Your task to perform on an android device: Go to ESPN.com Image 0: 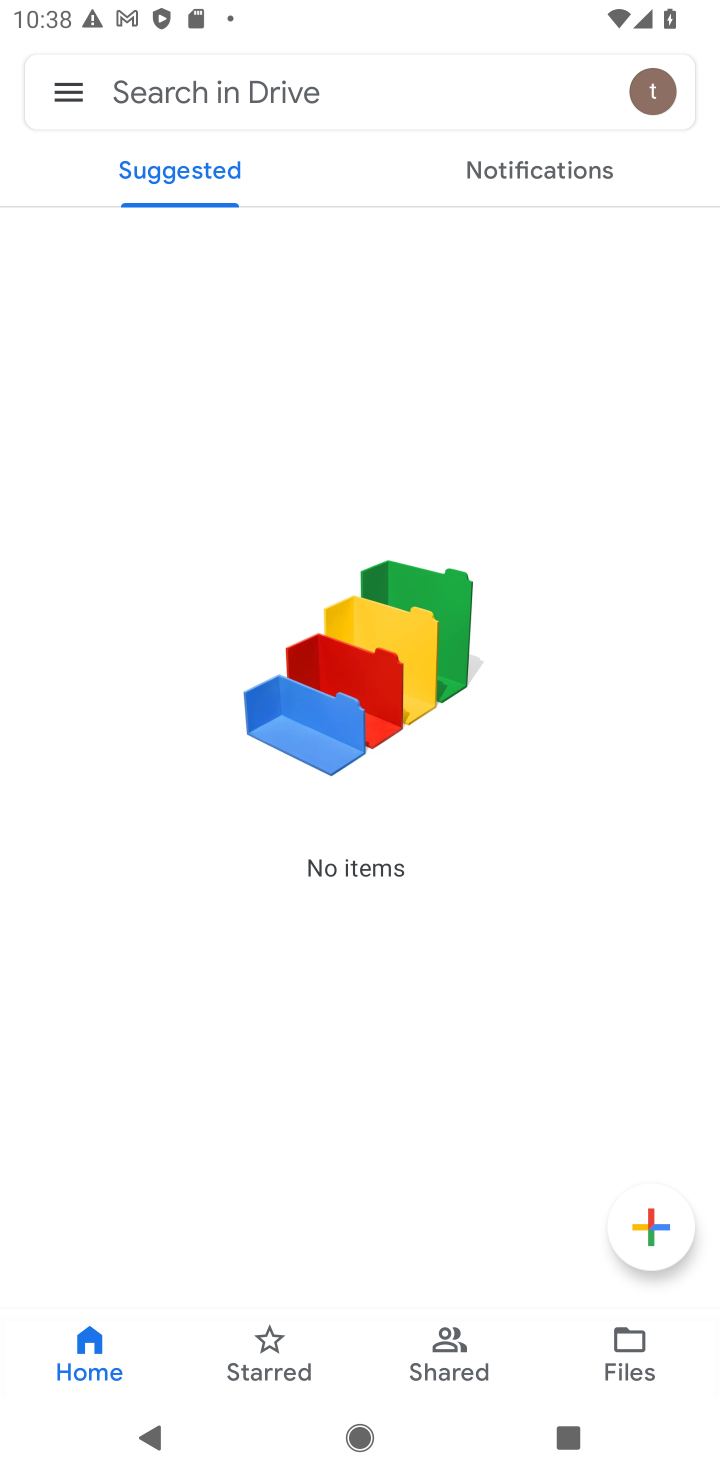
Step 0: press home button
Your task to perform on an android device: Go to ESPN.com Image 1: 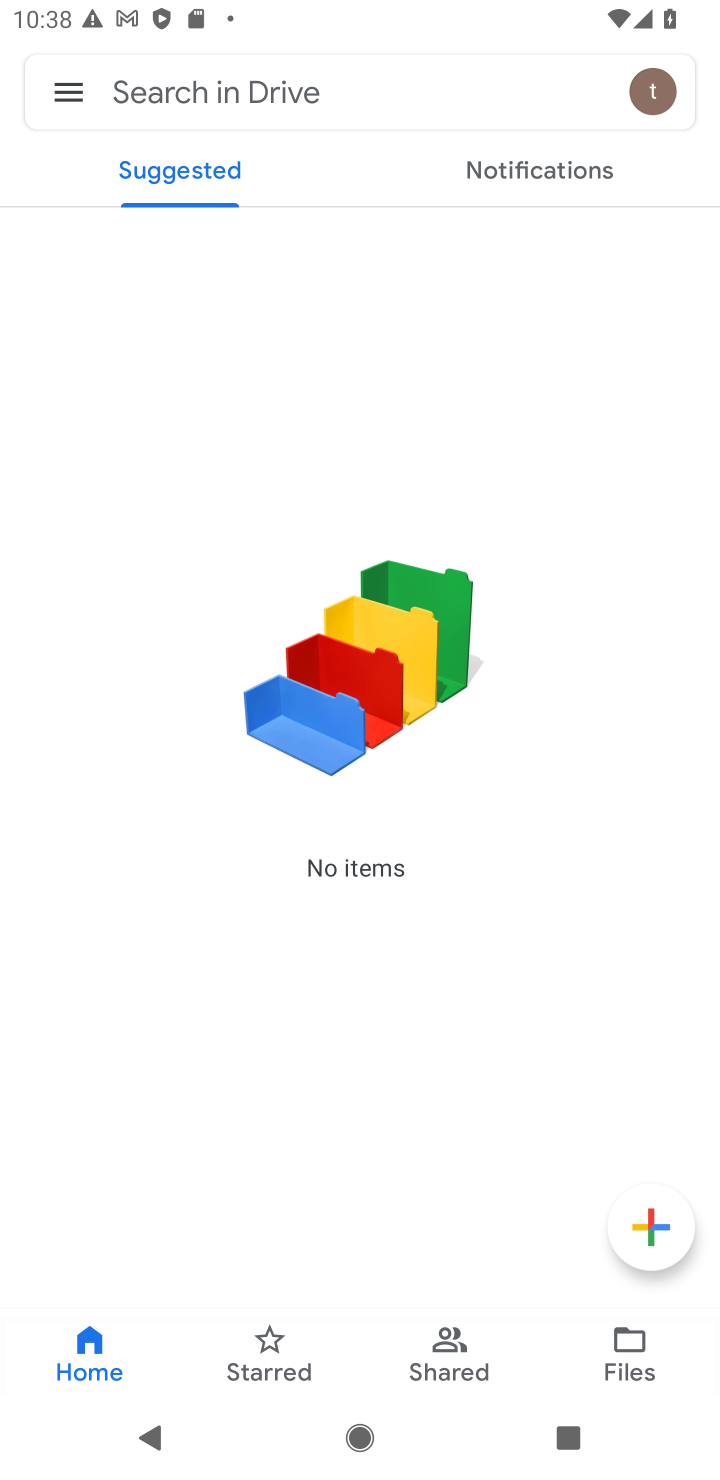
Step 1: press home button
Your task to perform on an android device: Go to ESPN.com Image 2: 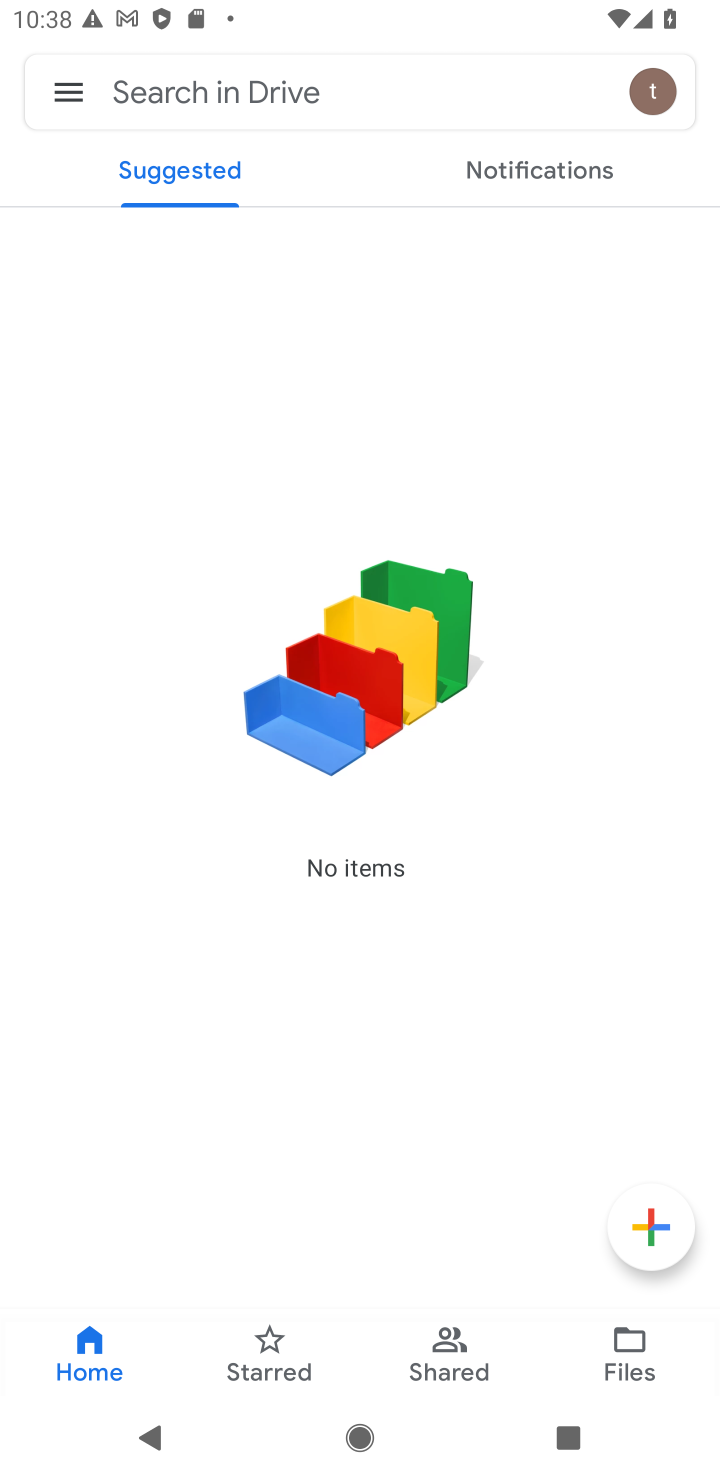
Step 2: press home button
Your task to perform on an android device: Go to ESPN.com Image 3: 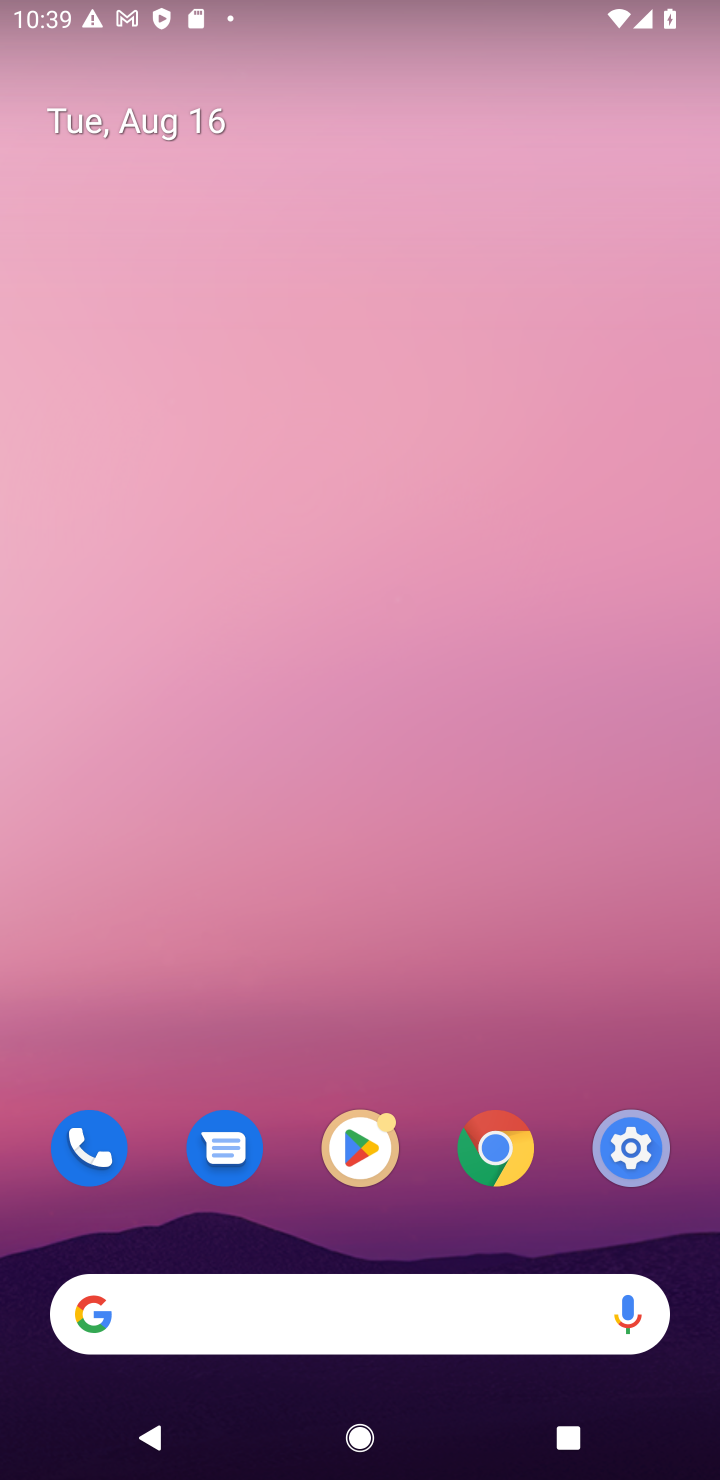
Step 3: click (506, 1149)
Your task to perform on an android device: Go to ESPN.com Image 4: 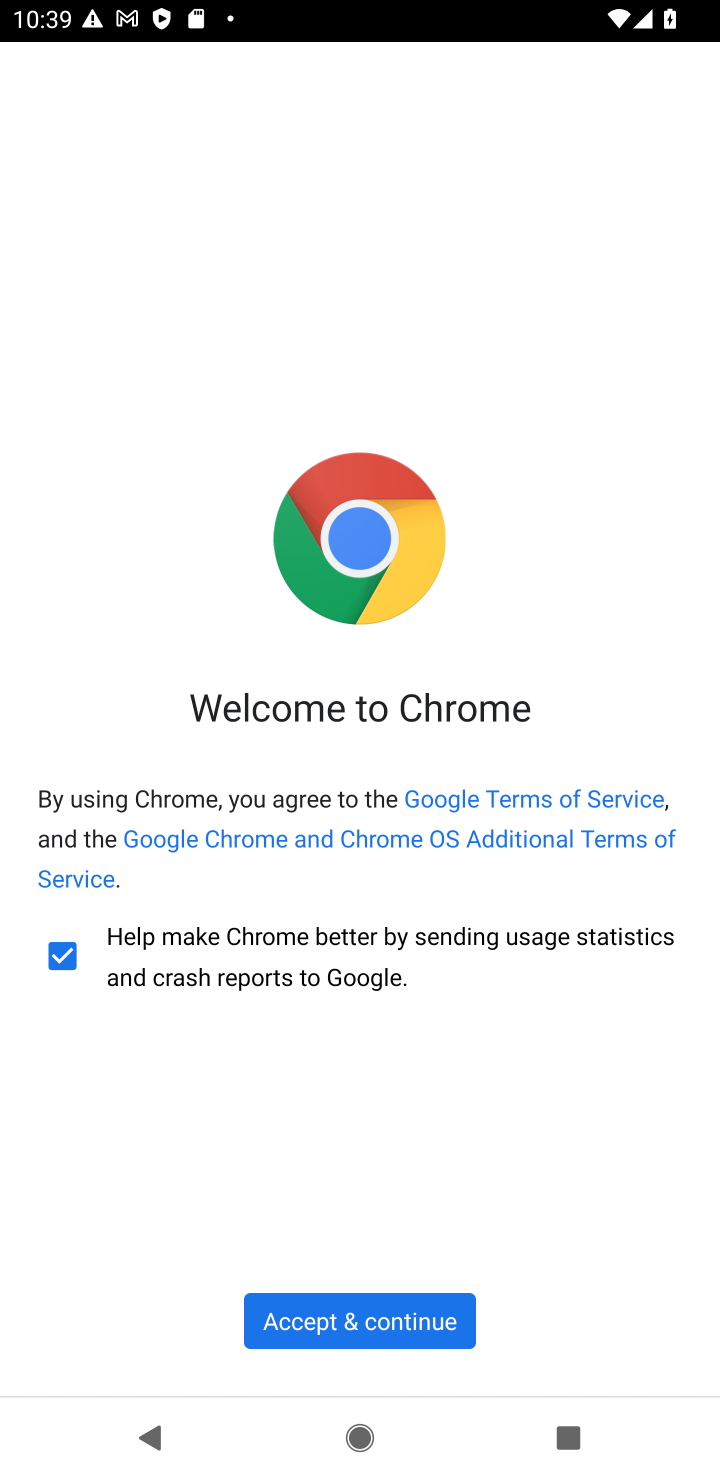
Step 4: click (353, 1300)
Your task to perform on an android device: Go to ESPN.com Image 5: 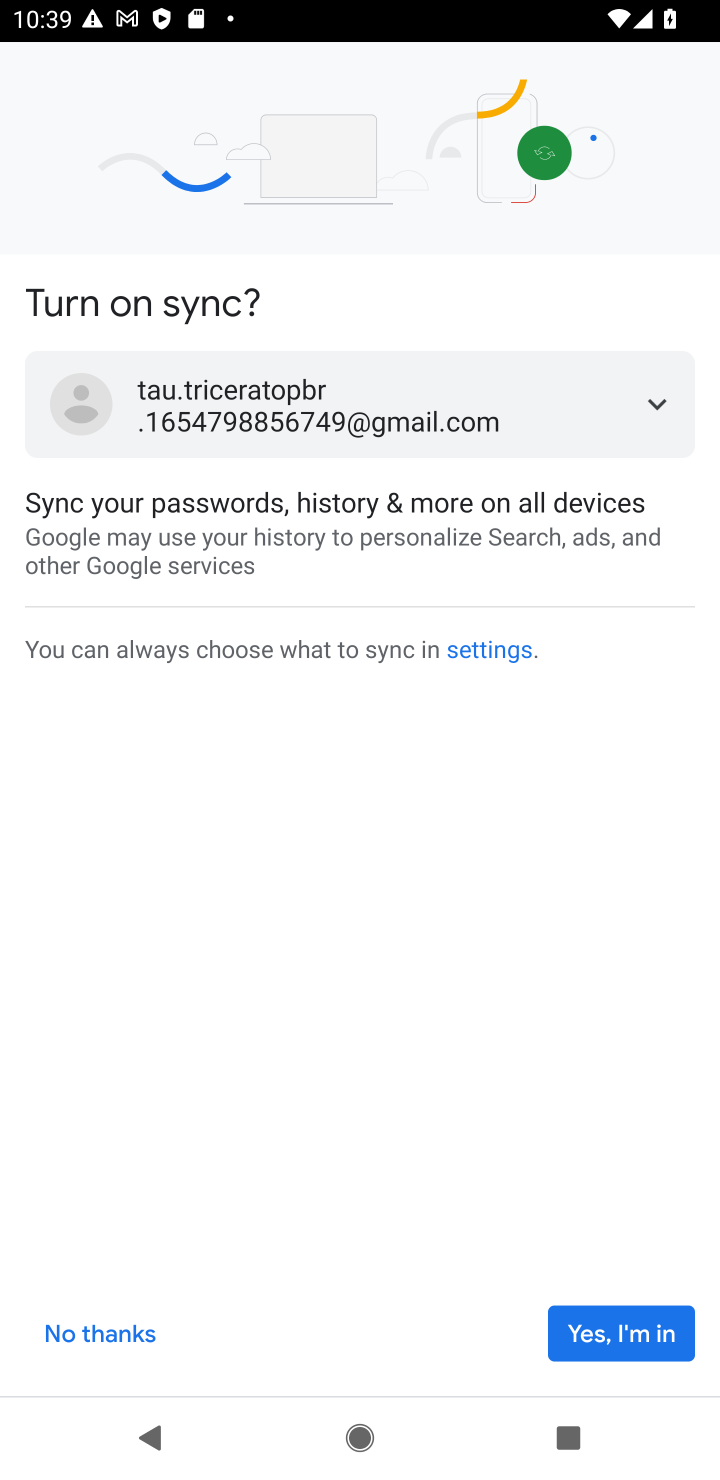
Step 5: click (663, 1325)
Your task to perform on an android device: Go to ESPN.com Image 6: 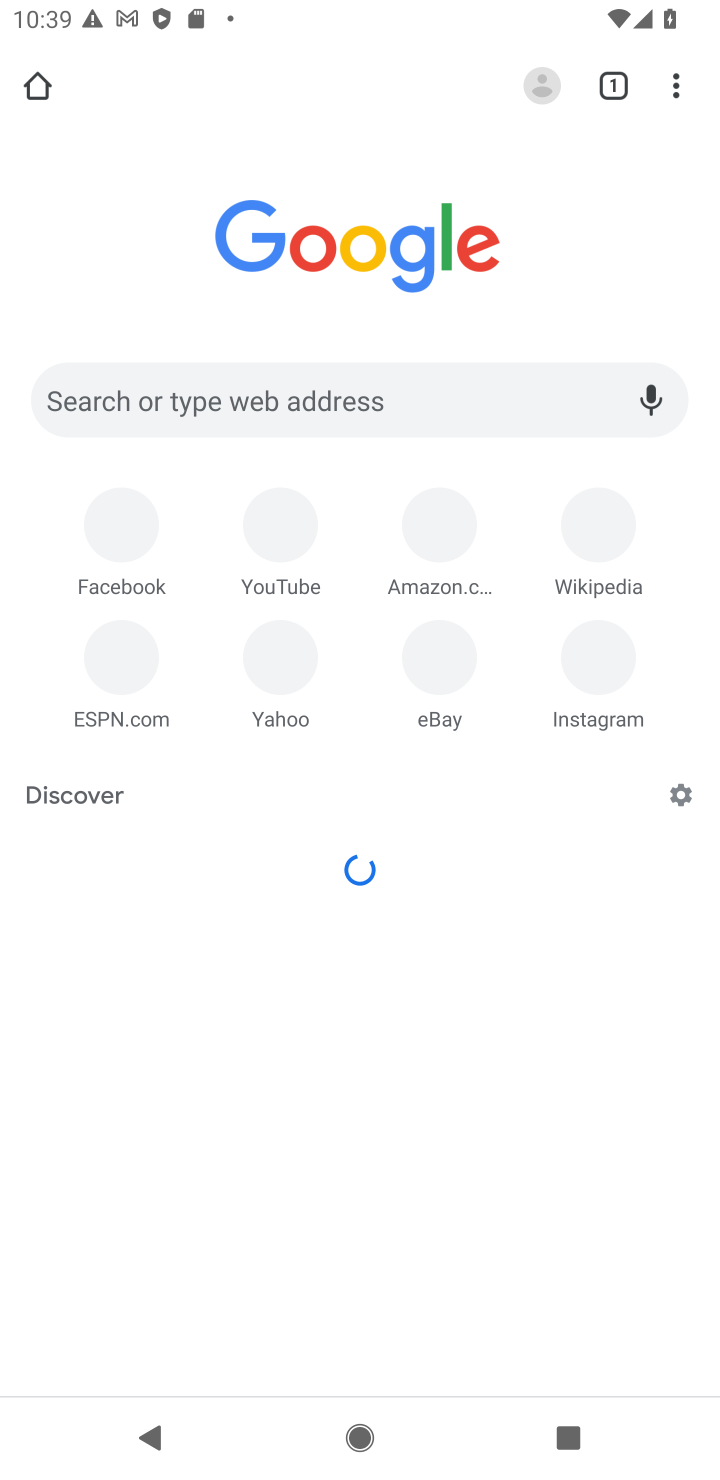
Step 6: click (663, 1325)
Your task to perform on an android device: Go to ESPN.com Image 7: 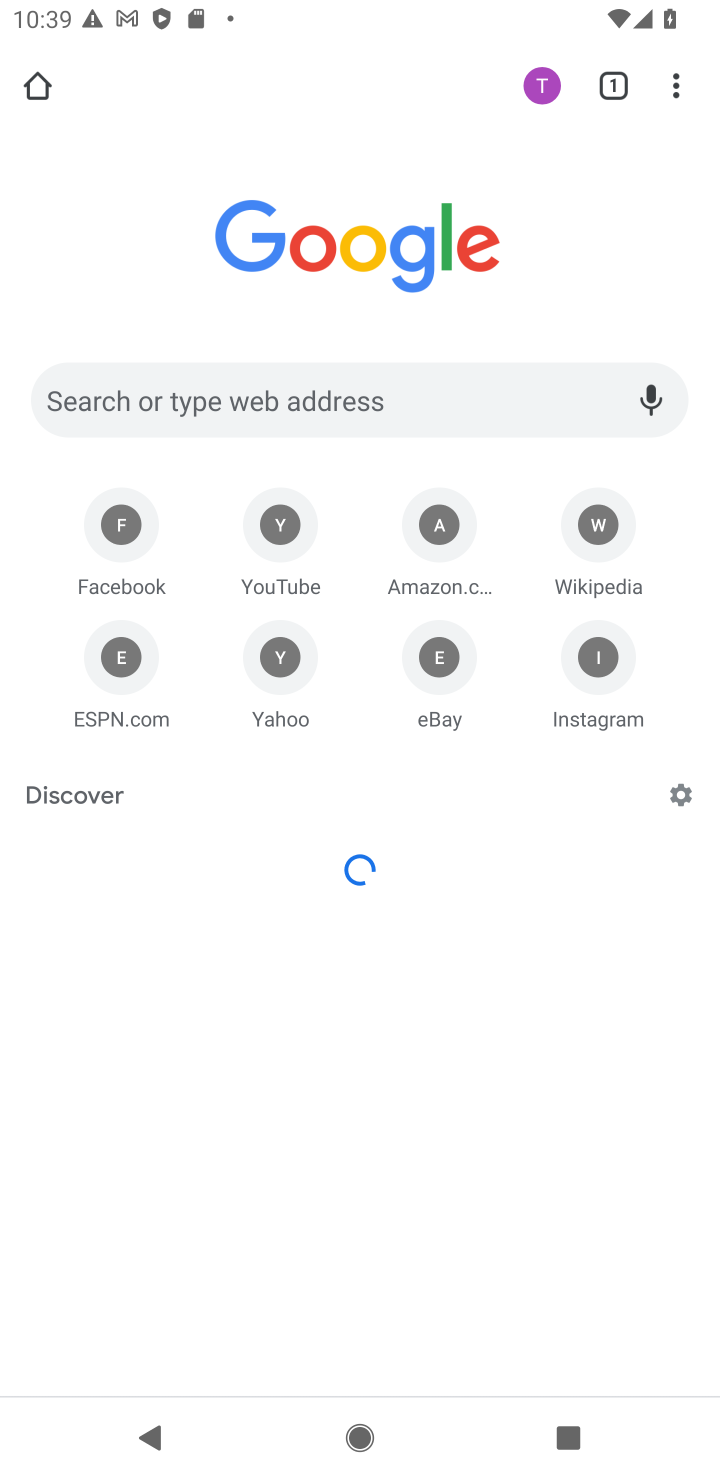
Step 7: click (301, 408)
Your task to perform on an android device: Go to ESPN.com Image 8: 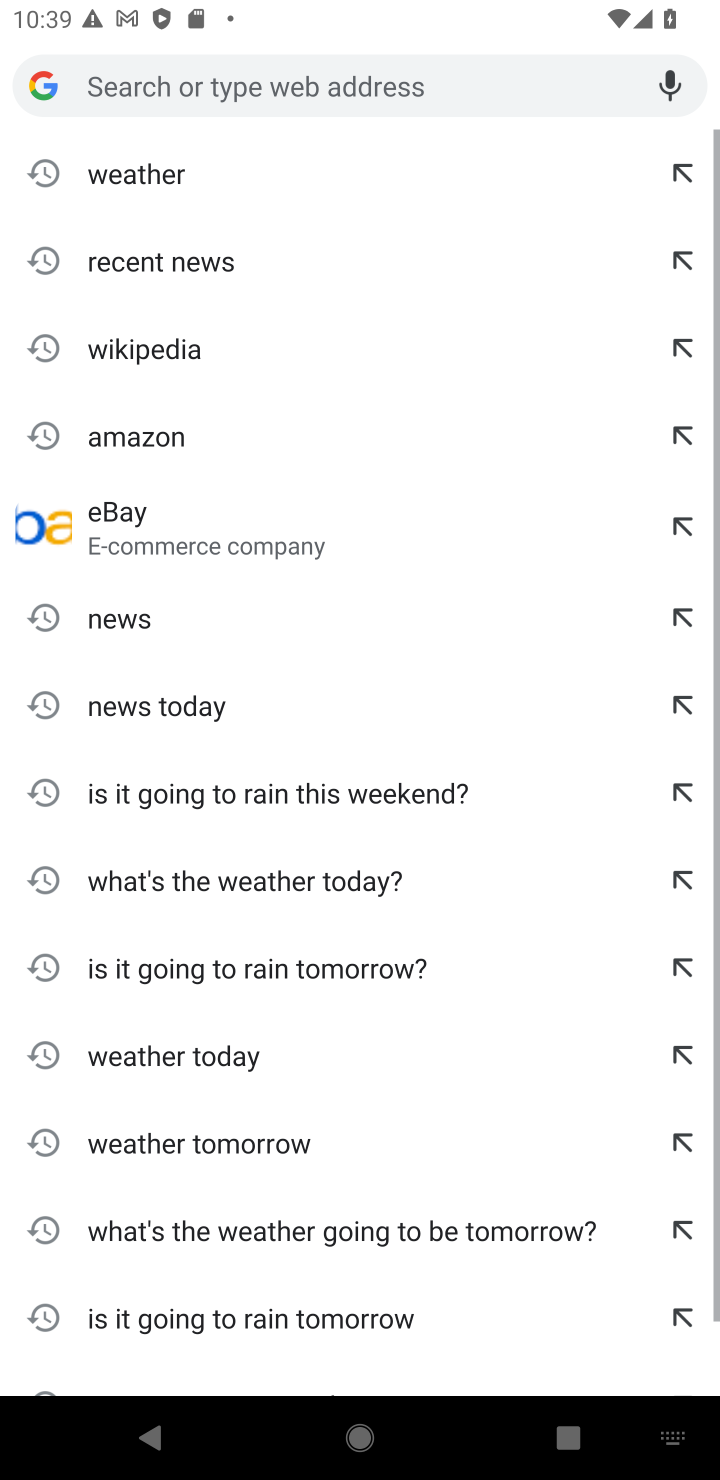
Step 8: press back button
Your task to perform on an android device: Go to ESPN.com Image 9: 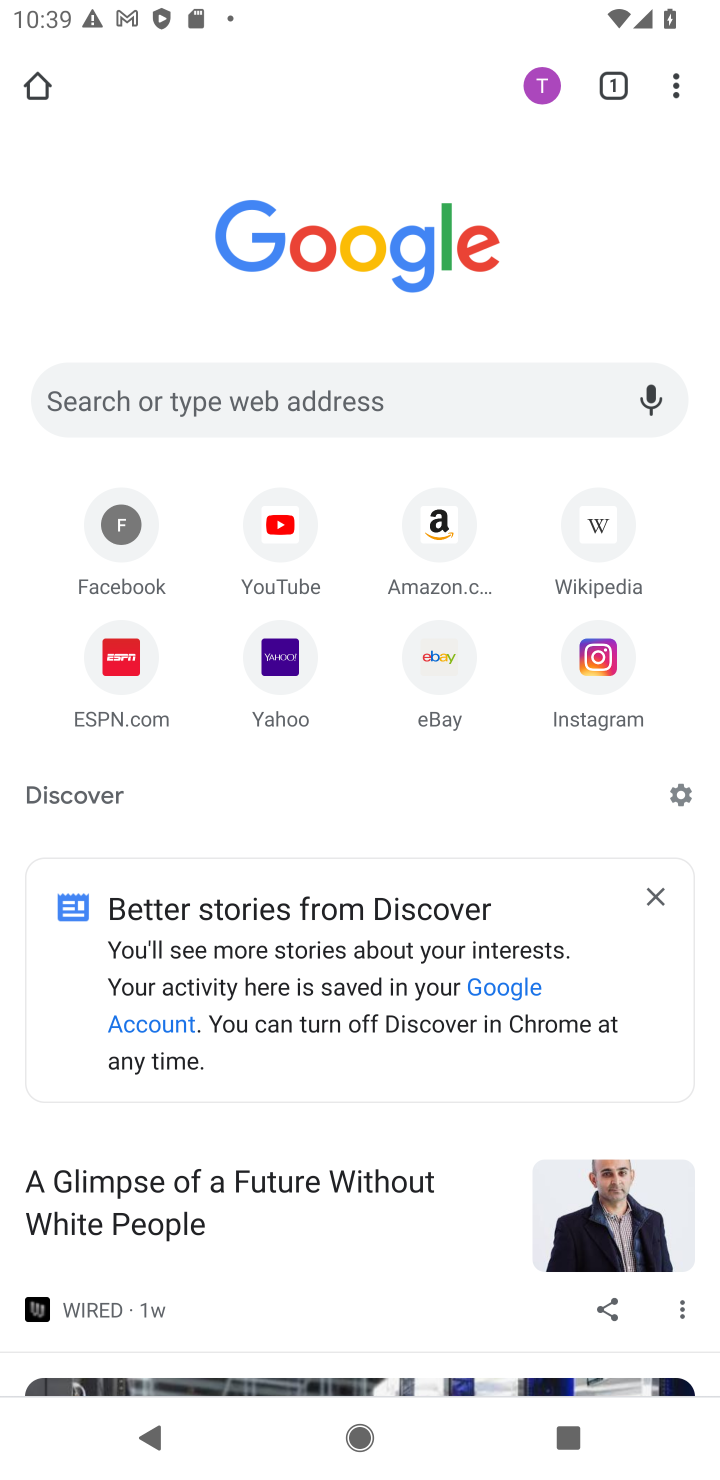
Step 9: click (116, 680)
Your task to perform on an android device: Go to ESPN.com Image 10: 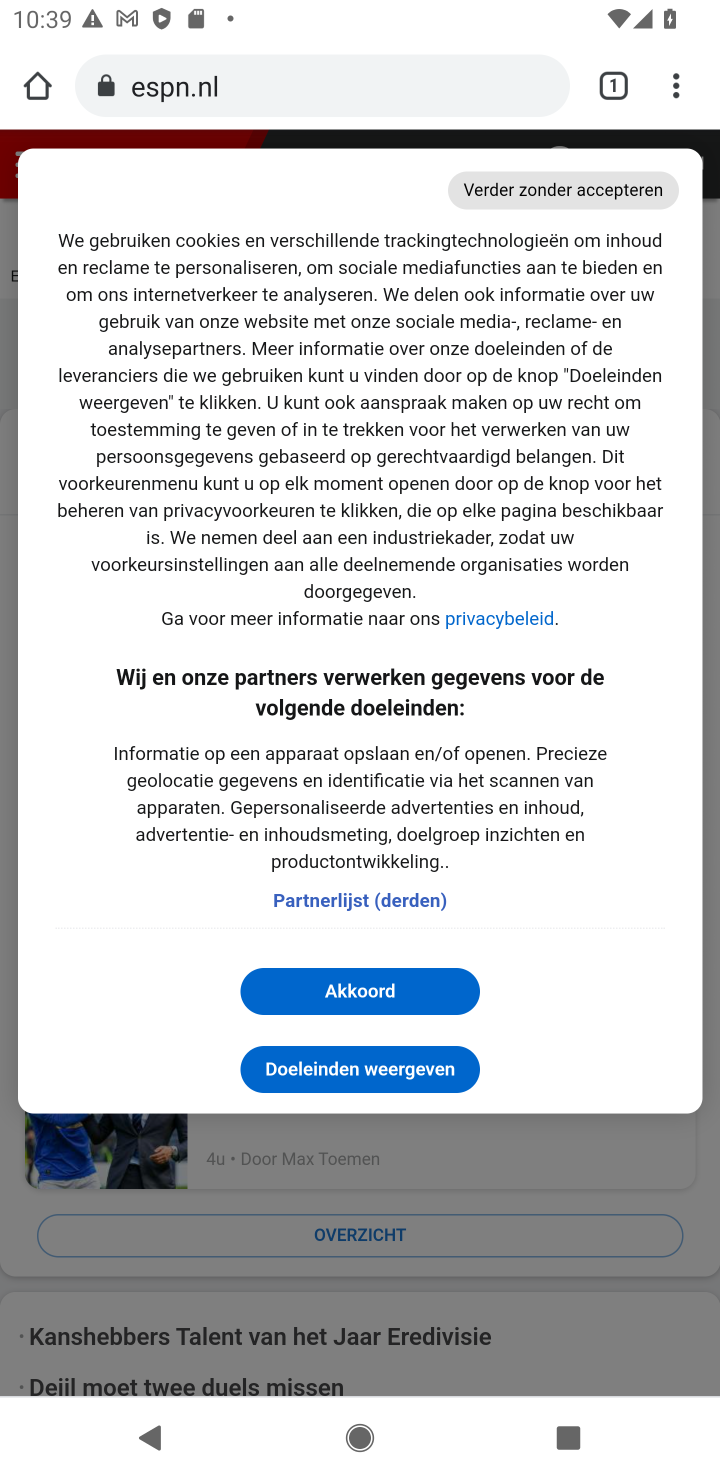
Step 10: task complete